Your task to perform on an android device: Open Google Maps Image 0: 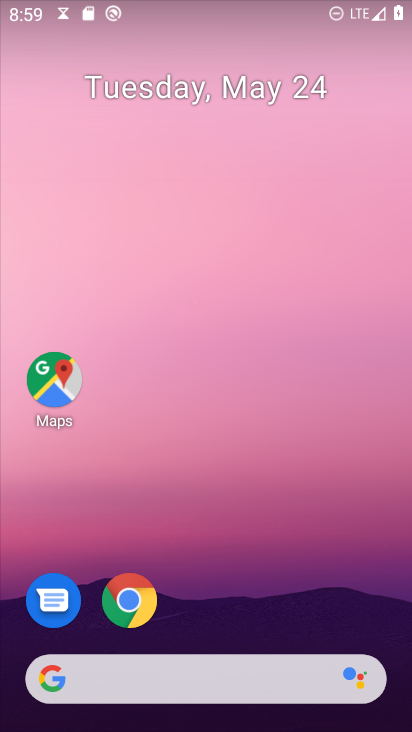
Step 0: click (27, 370)
Your task to perform on an android device: Open Google Maps Image 1: 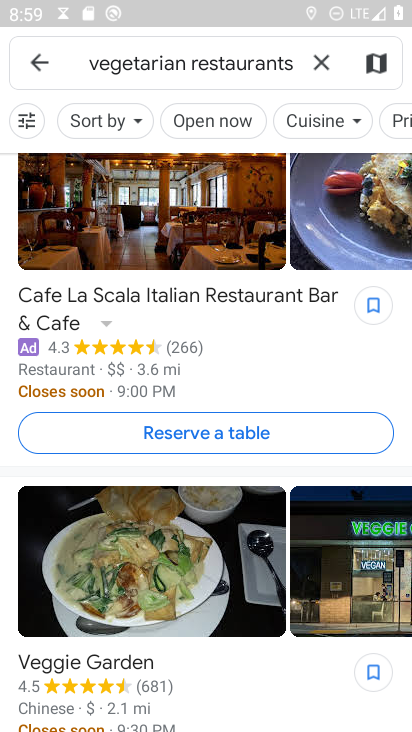
Step 1: task complete